Your task to perform on an android device: Go to Yahoo.com Image 0: 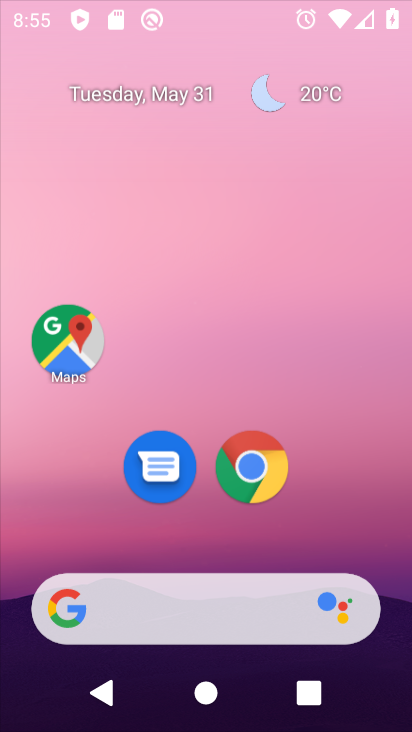
Step 0: click (243, 234)
Your task to perform on an android device: Go to Yahoo.com Image 1: 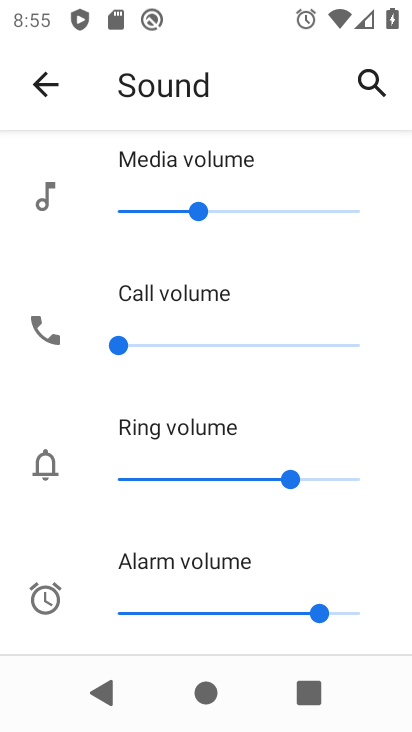
Step 1: drag from (238, 522) to (325, 284)
Your task to perform on an android device: Go to Yahoo.com Image 2: 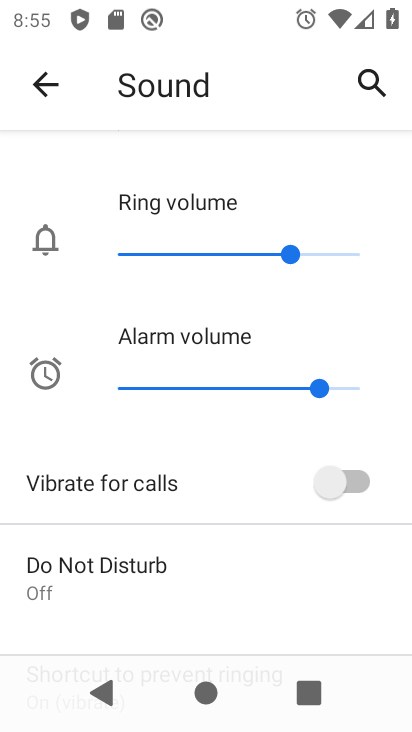
Step 2: press home button
Your task to perform on an android device: Go to Yahoo.com Image 3: 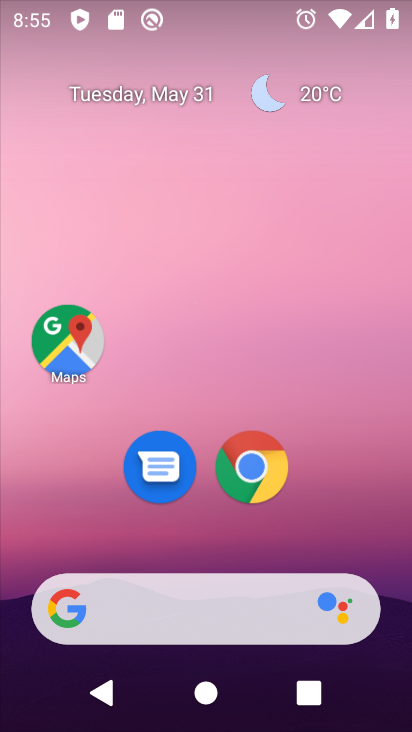
Step 3: drag from (186, 530) to (304, 195)
Your task to perform on an android device: Go to Yahoo.com Image 4: 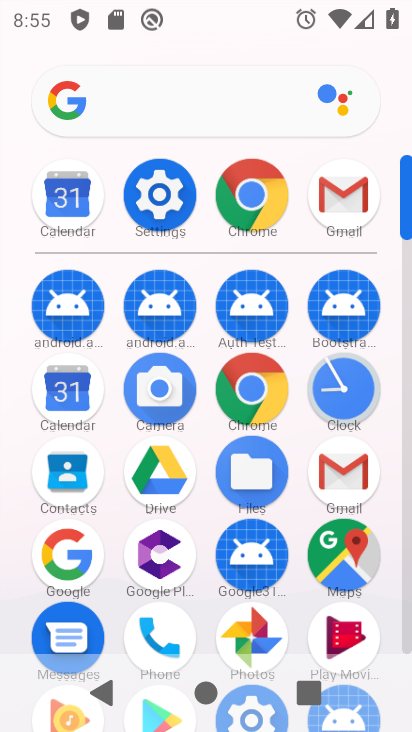
Step 4: click (192, 108)
Your task to perform on an android device: Go to Yahoo.com Image 5: 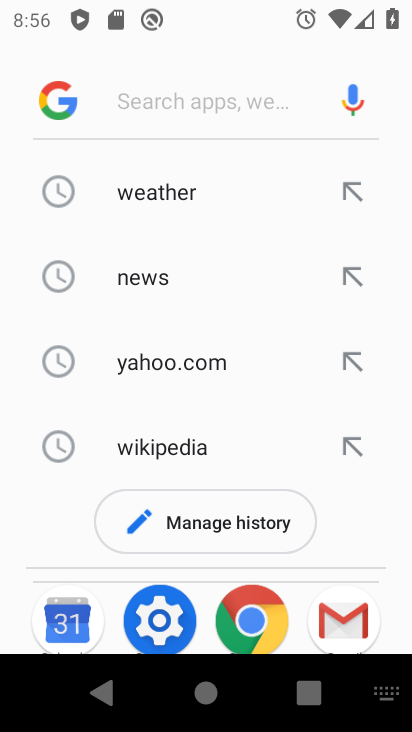
Step 5: click (142, 378)
Your task to perform on an android device: Go to Yahoo.com Image 6: 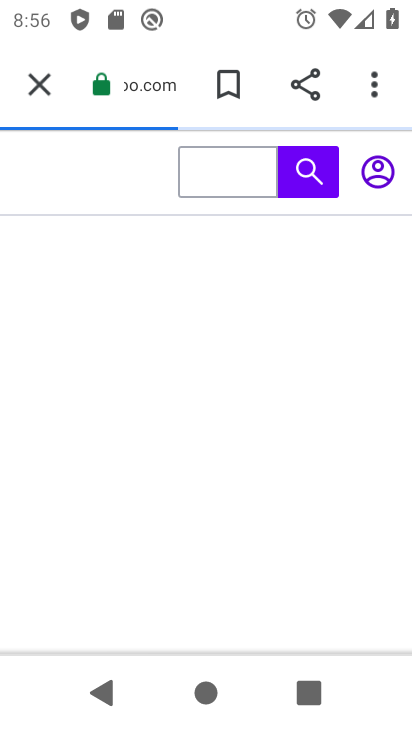
Step 6: task complete